Your task to perform on an android device: Is it going to rain tomorrow? Image 0: 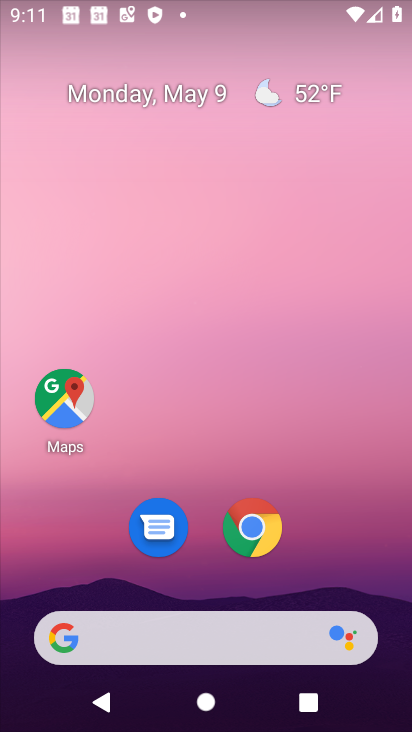
Step 0: drag from (213, 354) to (217, 32)
Your task to perform on an android device: Is it going to rain tomorrow? Image 1: 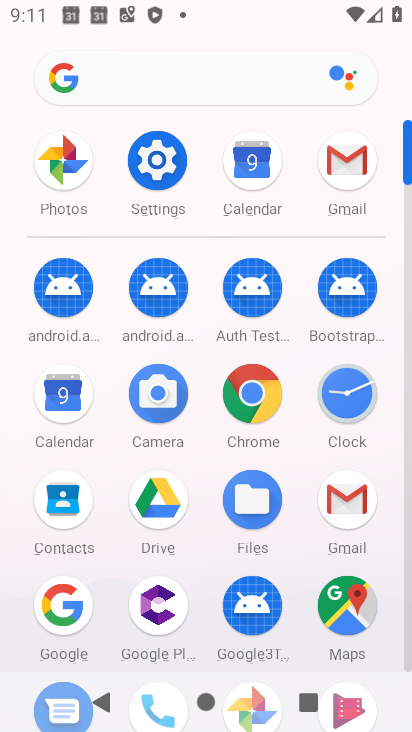
Step 1: click (60, 610)
Your task to perform on an android device: Is it going to rain tomorrow? Image 2: 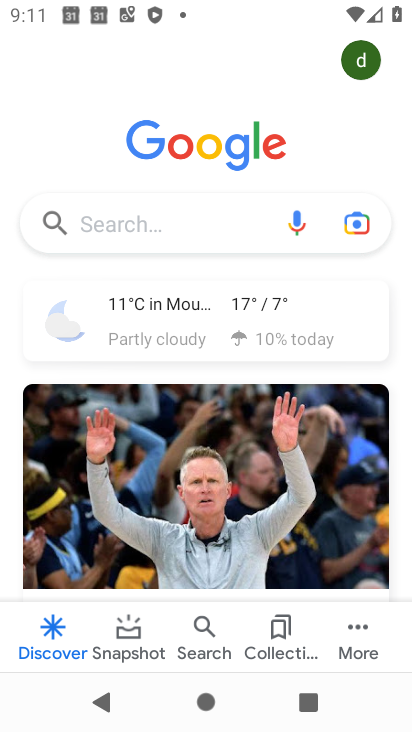
Step 2: click (179, 226)
Your task to perform on an android device: Is it going to rain tomorrow? Image 3: 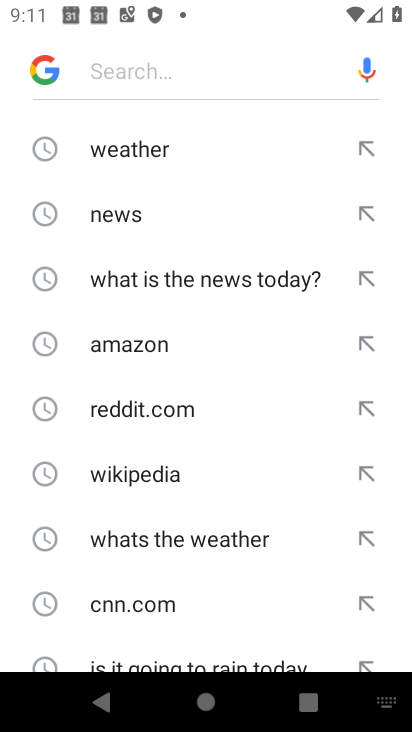
Step 3: type "is it going to rain tomorrow"
Your task to perform on an android device: Is it going to rain tomorrow? Image 4: 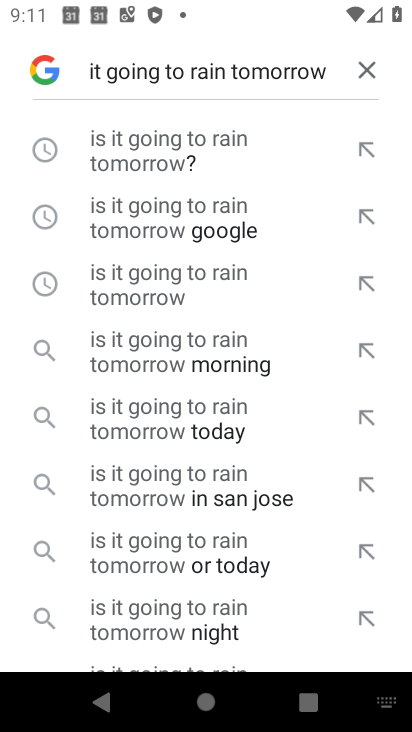
Step 4: click (206, 139)
Your task to perform on an android device: Is it going to rain tomorrow? Image 5: 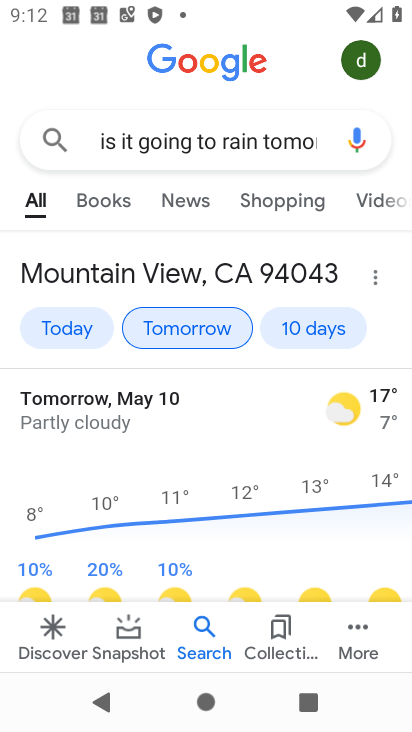
Step 5: task complete